Your task to perform on an android device: Open the calendar and show me this week's events? Image 0: 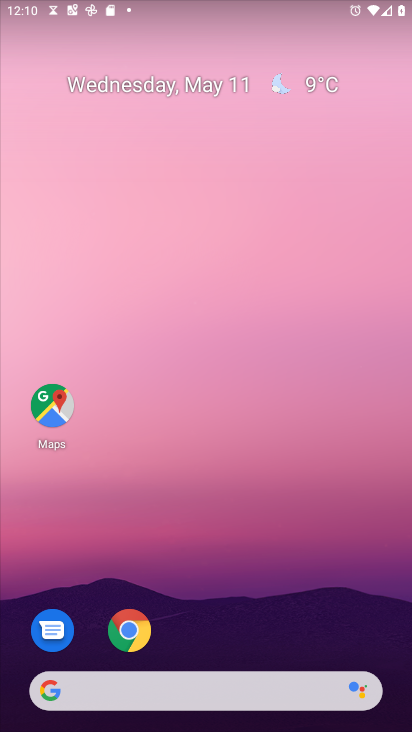
Step 0: drag from (246, 622) to (284, 115)
Your task to perform on an android device: Open the calendar and show me this week's events? Image 1: 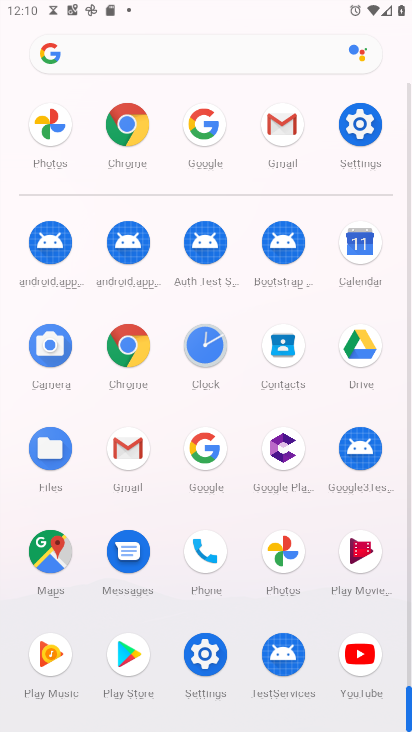
Step 1: drag from (159, 593) to (264, 190)
Your task to perform on an android device: Open the calendar and show me this week's events? Image 2: 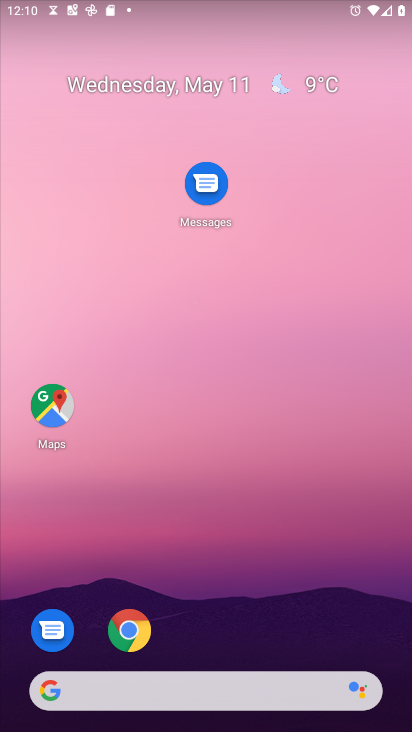
Step 2: drag from (173, 563) to (232, 128)
Your task to perform on an android device: Open the calendar and show me this week's events? Image 3: 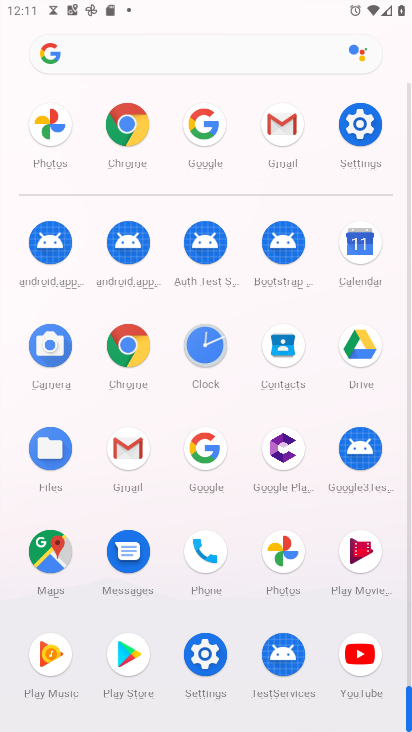
Step 3: click (356, 249)
Your task to perform on an android device: Open the calendar and show me this week's events? Image 4: 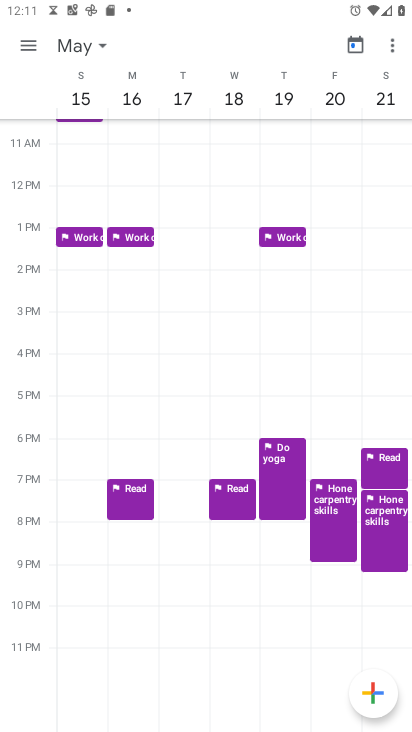
Step 4: click (31, 46)
Your task to perform on an android device: Open the calendar and show me this week's events? Image 5: 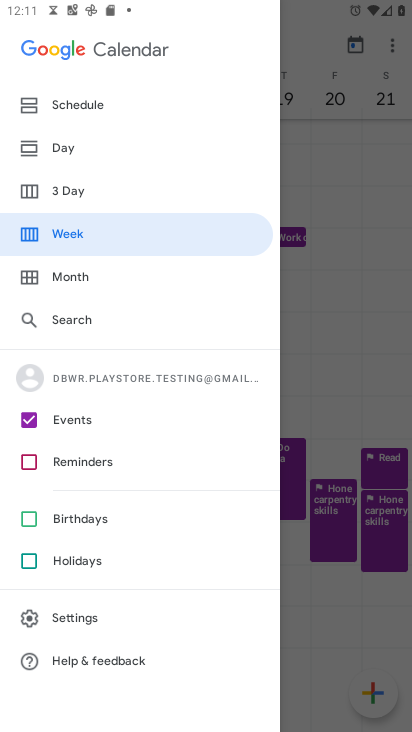
Step 5: click (77, 243)
Your task to perform on an android device: Open the calendar and show me this week's events? Image 6: 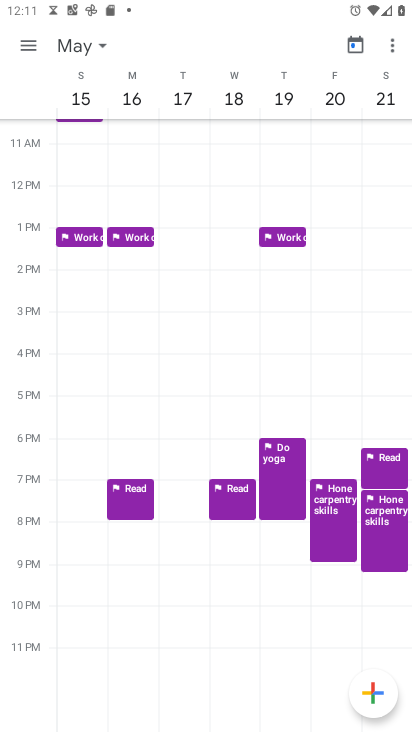
Step 6: task complete